Your task to perform on an android device: Open Chrome and go to settings Image 0: 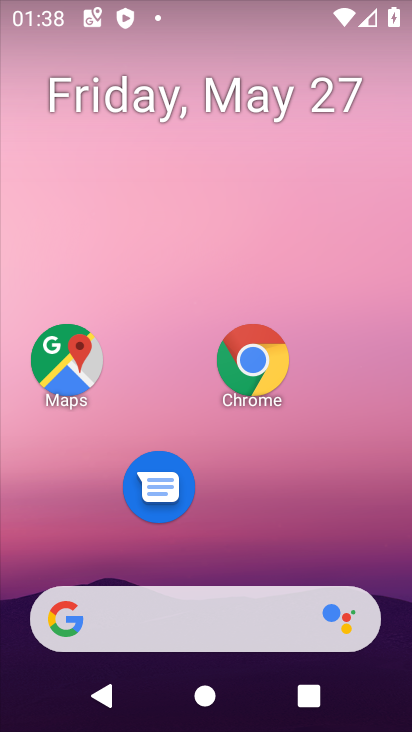
Step 0: click (251, 353)
Your task to perform on an android device: Open Chrome and go to settings Image 1: 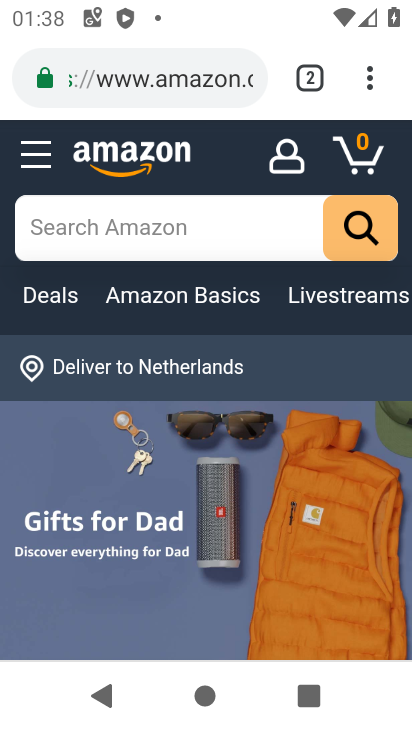
Step 1: click (367, 84)
Your task to perform on an android device: Open Chrome and go to settings Image 2: 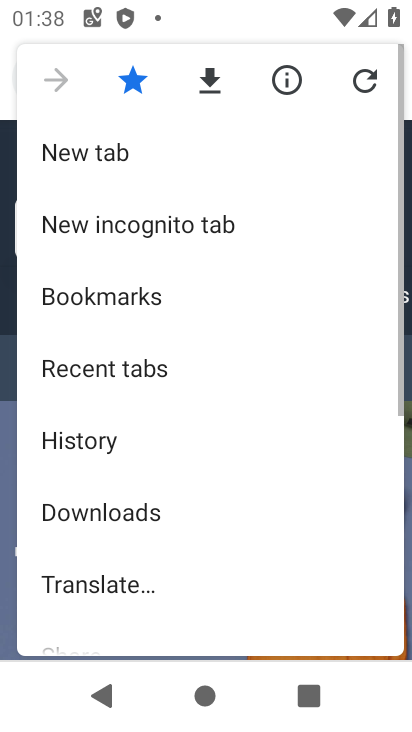
Step 2: drag from (164, 559) to (199, 182)
Your task to perform on an android device: Open Chrome and go to settings Image 3: 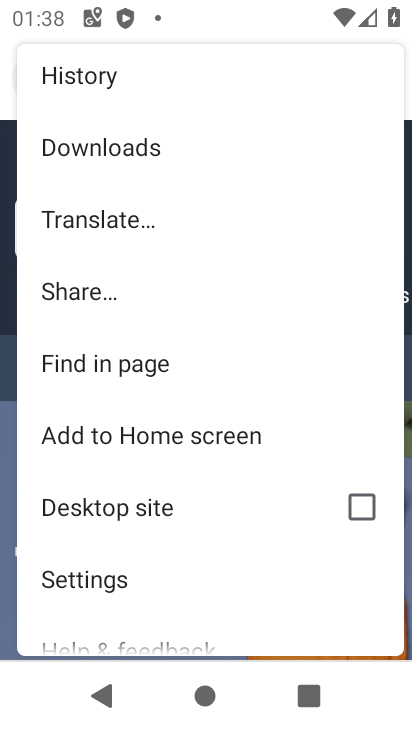
Step 3: click (103, 584)
Your task to perform on an android device: Open Chrome and go to settings Image 4: 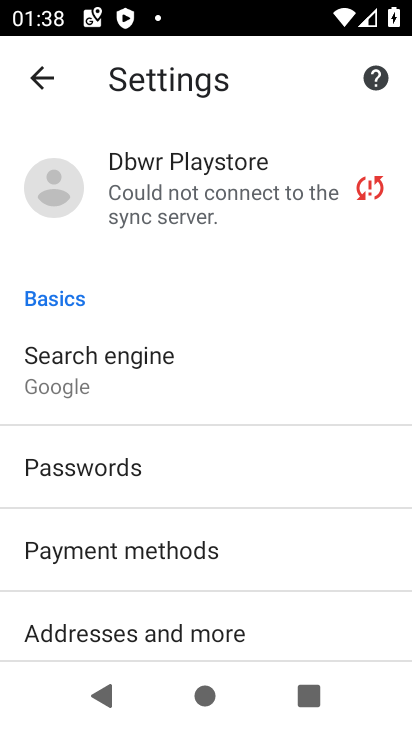
Step 4: task complete